Your task to perform on an android device: turn off wifi Image 0: 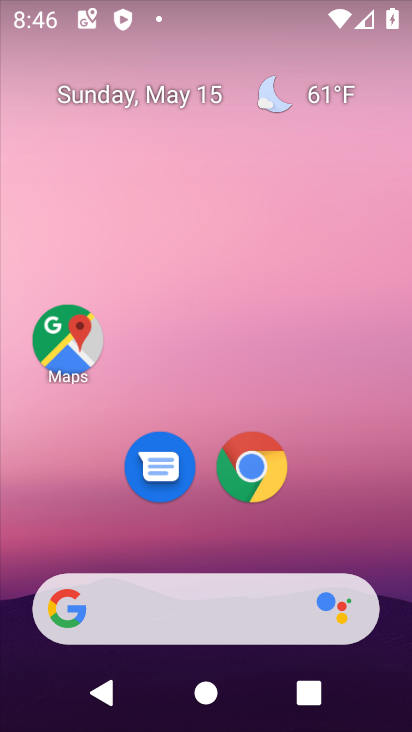
Step 0: drag from (216, 14) to (310, 591)
Your task to perform on an android device: turn off wifi Image 1: 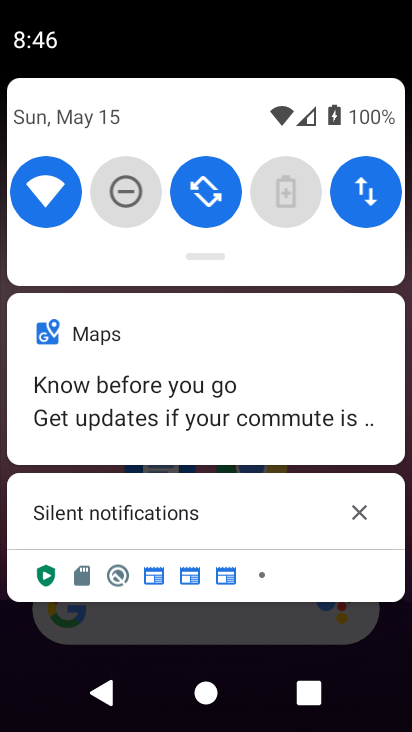
Step 1: click (50, 198)
Your task to perform on an android device: turn off wifi Image 2: 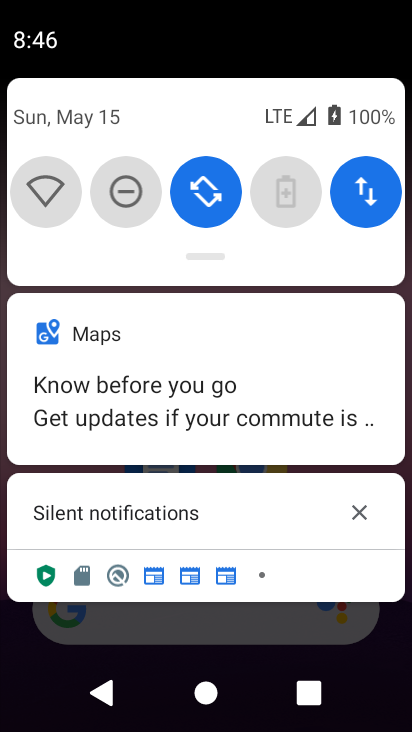
Step 2: task complete